Your task to perform on an android device: check battery use Image 0: 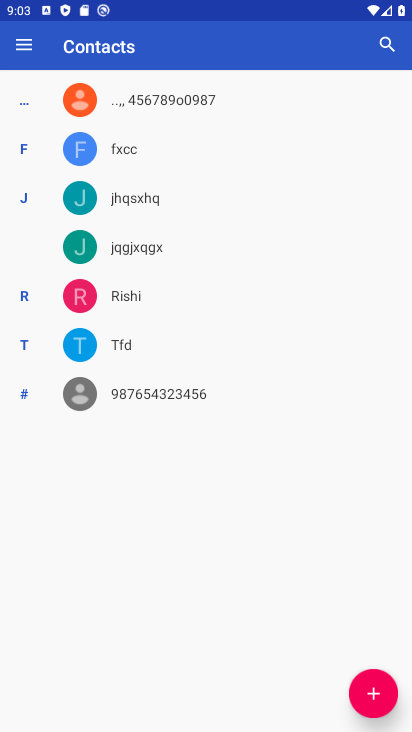
Step 0: press home button
Your task to perform on an android device: check battery use Image 1: 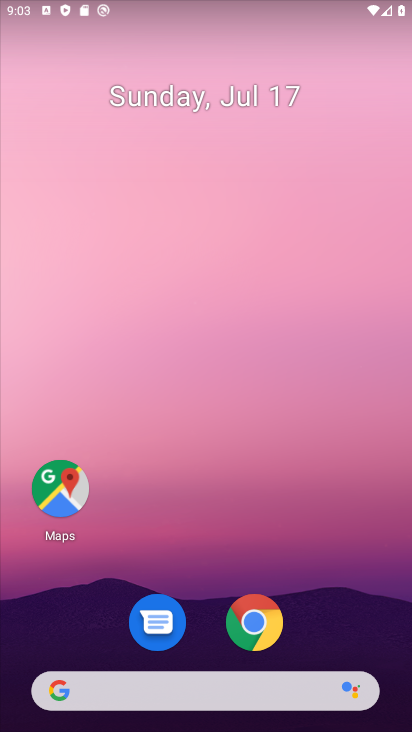
Step 1: drag from (194, 643) to (292, 83)
Your task to perform on an android device: check battery use Image 2: 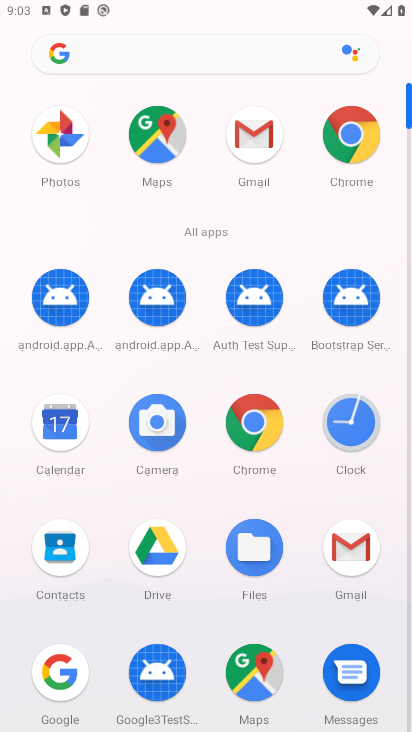
Step 2: drag from (299, 569) to (353, 0)
Your task to perform on an android device: check battery use Image 3: 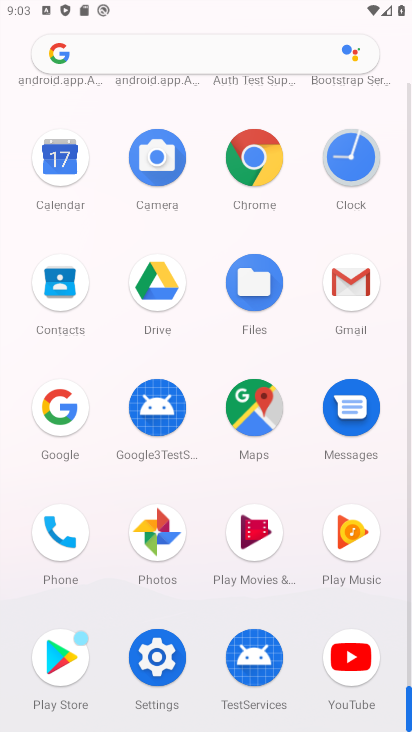
Step 3: click (148, 660)
Your task to perform on an android device: check battery use Image 4: 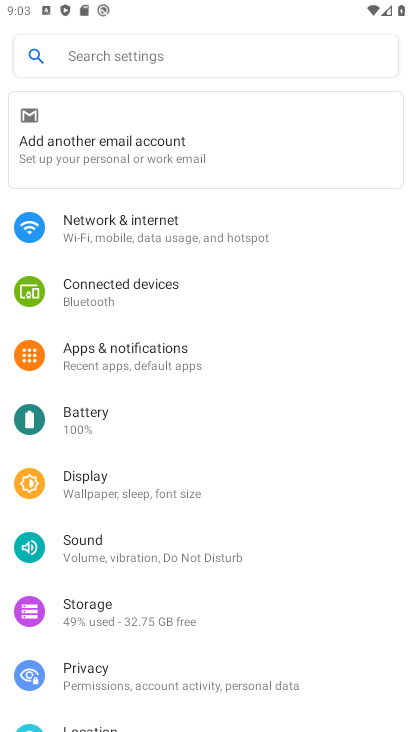
Step 4: click (105, 431)
Your task to perform on an android device: check battery use Image 5: 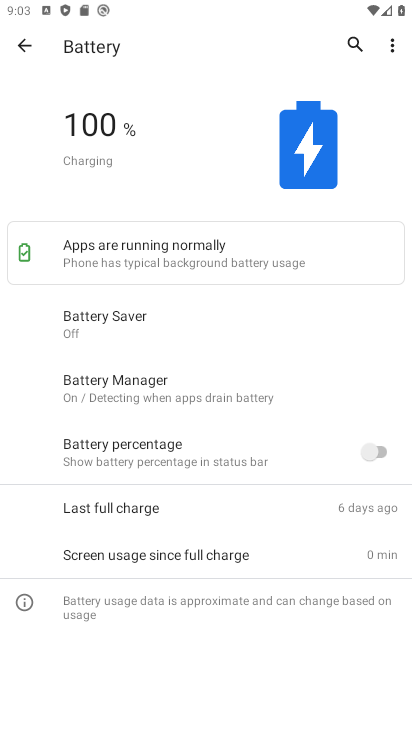
Step 5: click (400, 48)
Your task to perform on an android device: check battery use Image 6: 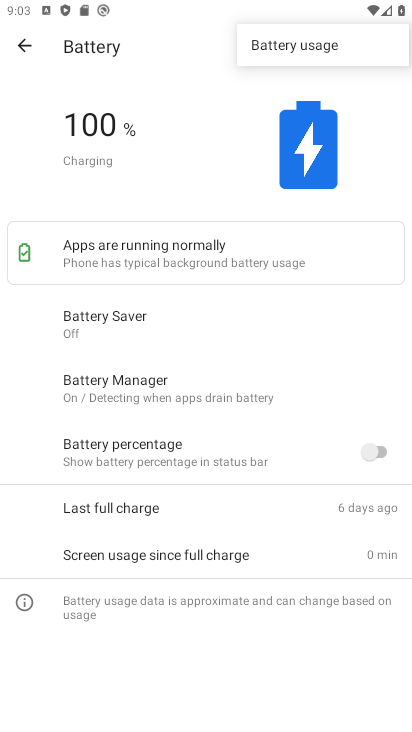
Step 6: click (355, 42)
Your task to perform on an android device: check battery use Image 7: 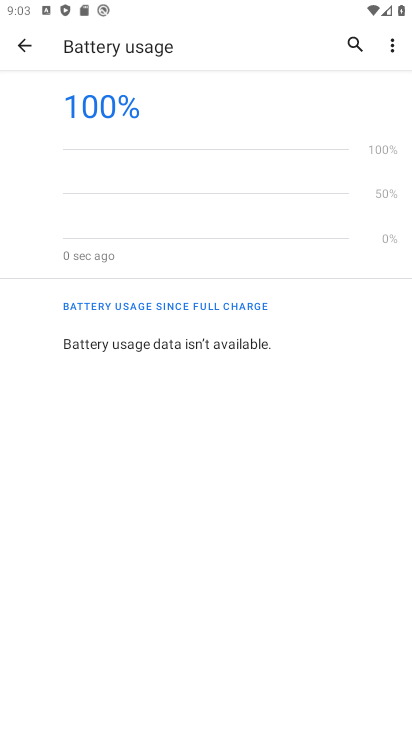
Step 7: task complete